Your task to perform on an android device: open app "NewsBreak: Local News & Alerts" Image 0: 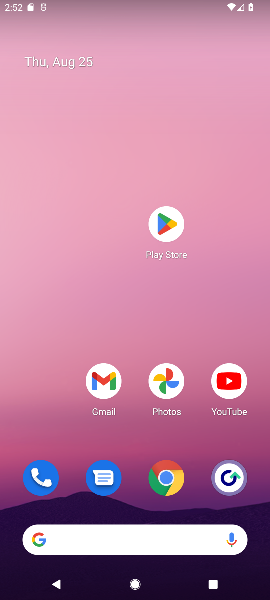
Step 0: click (158, 220)
Your task to perform on an android device: open app "NewsBreak: Local News & Alerts" Image 1: 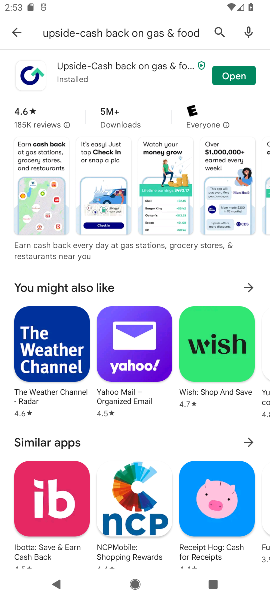
Step 1: click (218, 34)
Your task to perform on an android device: open app "NewsBreak: Local News & Alerts" Image 2: 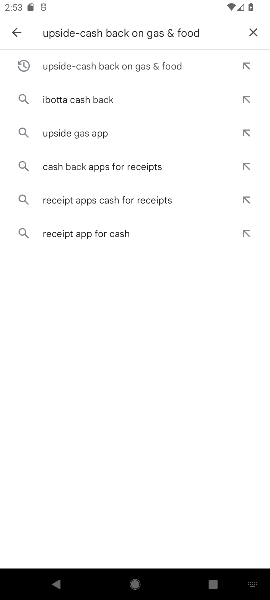
Step 2: click (252, 25)
Your task to perform on an android device: open app "NewsBreak: Local News & Alerts" Image 3: 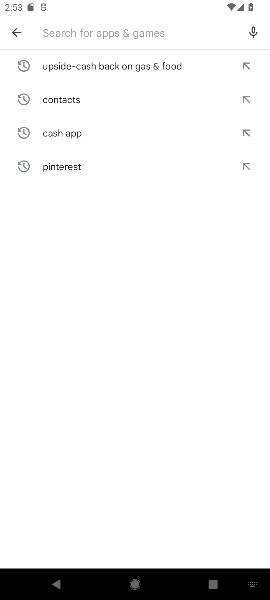
Step 3: type "NewsBreak: Local News & Alerts"
Your task to perform on an android device: open app "NewsBreak: Local News & Alerts" Image 4: 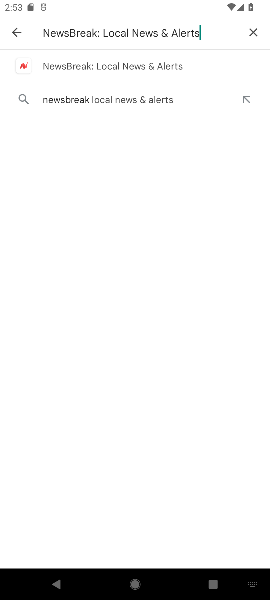
Step 4: click (126, 66)
Your task to perform on an android device: open app "NewsBreak: Local News & Alerts" Image 5: 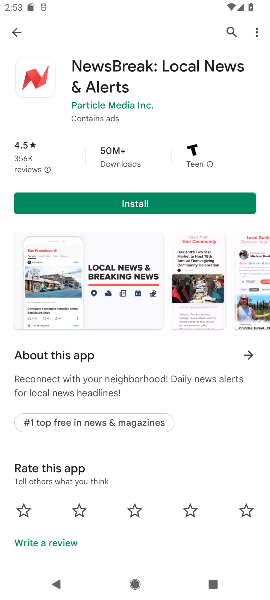
Step 5: task complete